Your task to perform on an android device: clear history in the chrome app Image 0: 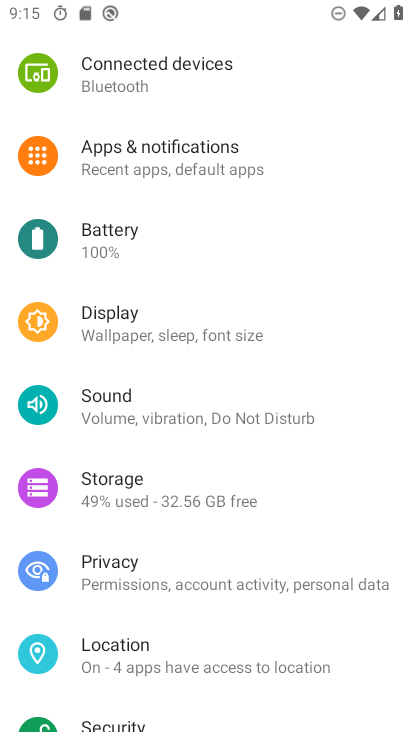
Step 0: press home button
Your task to perform on an android device: clear history in the chrome app Image 1: 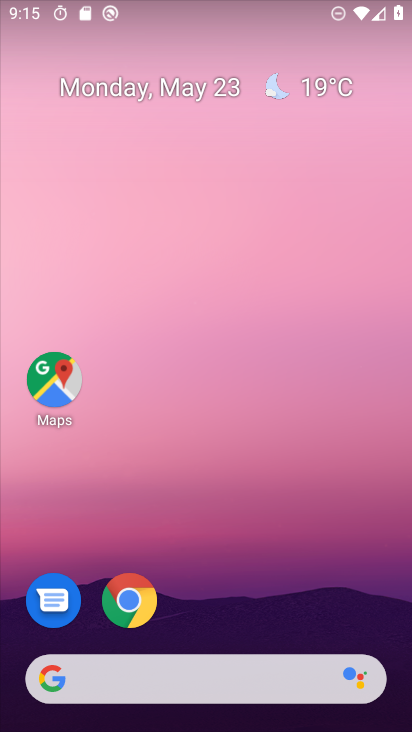
Step 1: click (107, 613)
Your task to perform on an android device: clear history in the chrome app Image 2: 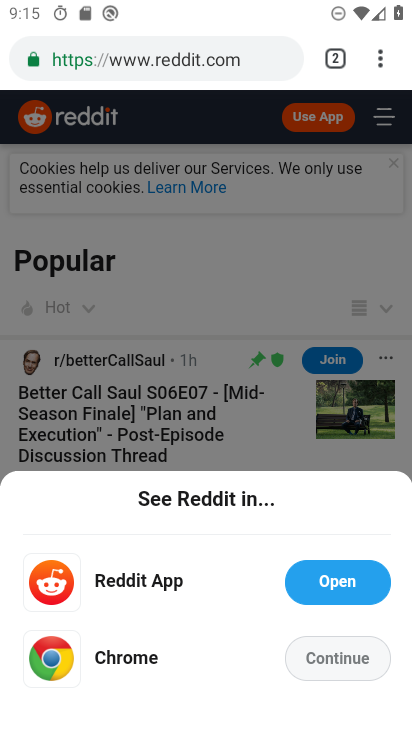
Step 2: click (378, 50)
Your task to perform on an android device: clear history in the chrome app Image 3: 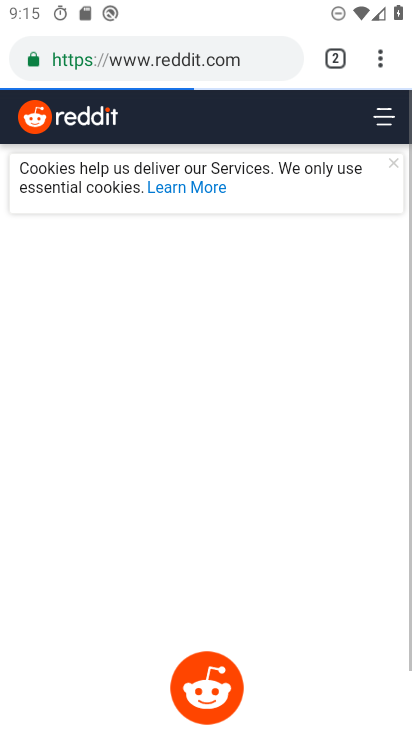
Step 3: click (378, 51)
Your task to perform on an android device: clear history in the chrome app Image 4: 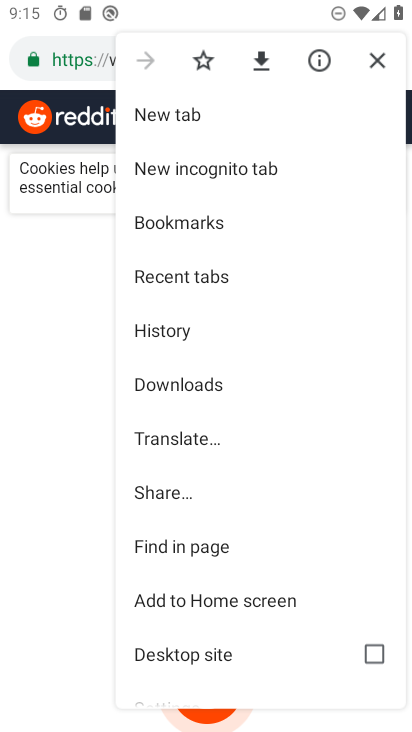
Step 4: click (183, 340)
Your task to perform on an android device: clear history in the chrome app Image 5: 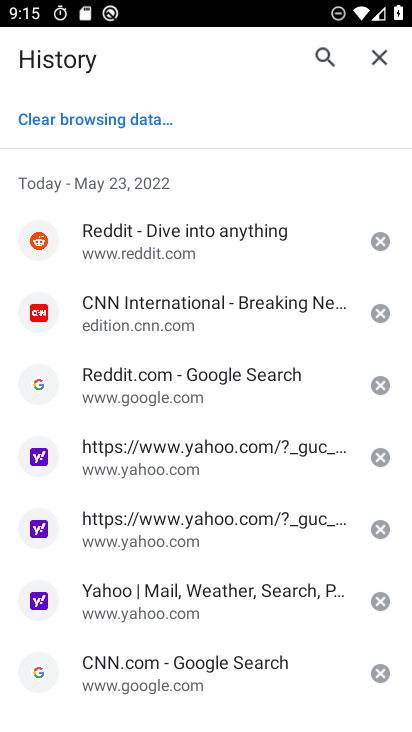
Step 5: click (70, 125)
Your task to perform on an android device: clear history in the chrome app Image 6: 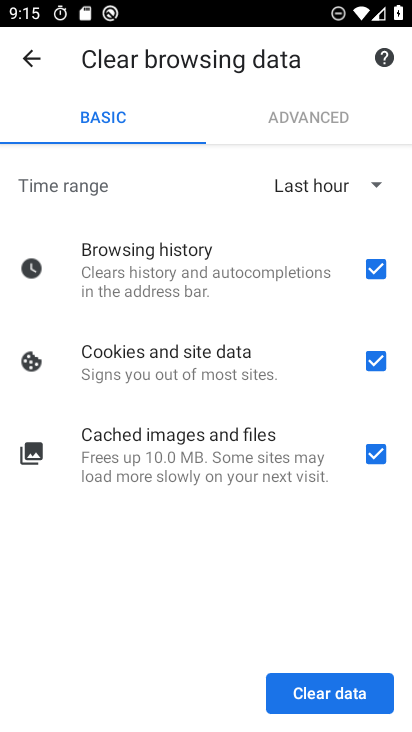
Step 6: click (374, 695)
Your task to perform on an android device: clear history in the chrome app Image 7: 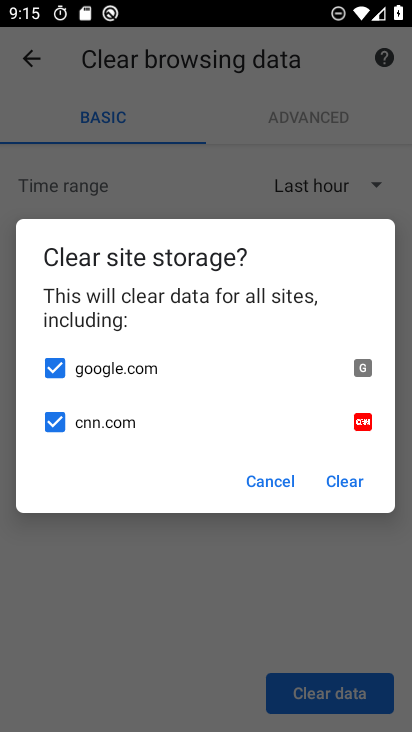
Step 7: click (357, 487)
Your task to perform on an android device: clear history in the chrome app Image 8: 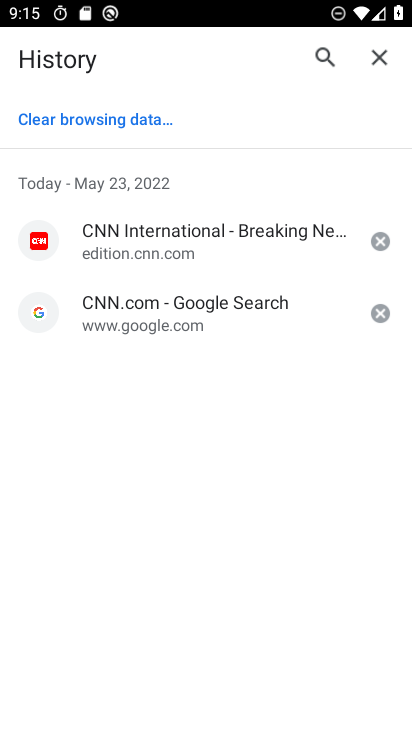
Step 8: task complete